Your task to perform on an android device: Is it going to rain this weekend? Image 0: 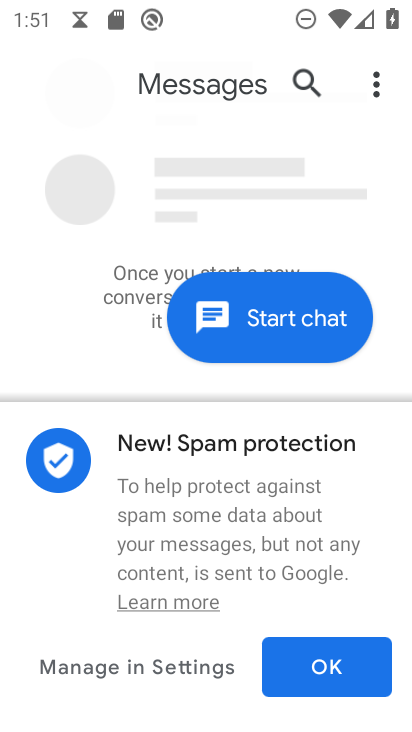
Step 0: press home button
Your task to perform on an android device: Is it going to rain this weekend? Image 1: 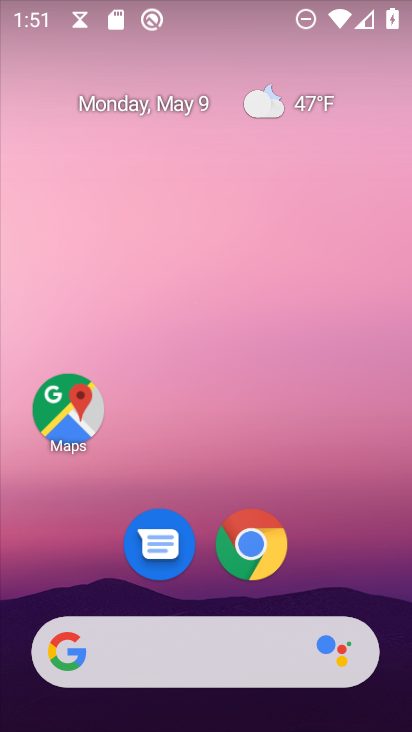
Step 1: drag from (357, 530) to (398, 163)
Your task to perform on an android device: Is it going to rain this weekend? Image 2: 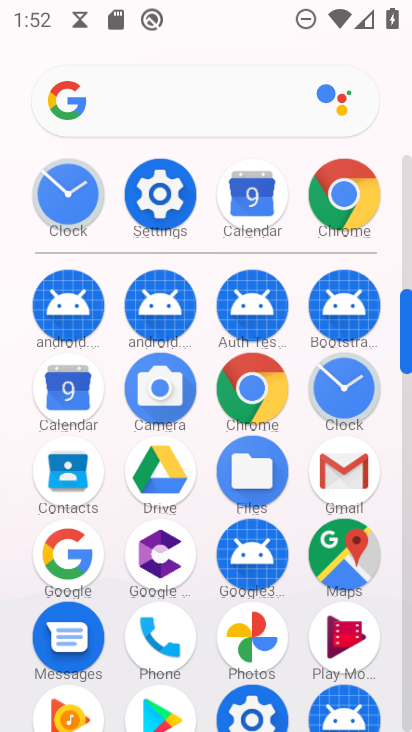
Step 2: click (91, 406)
Your task to perform on an android device: Is it going to rain this weekend? Image 3: 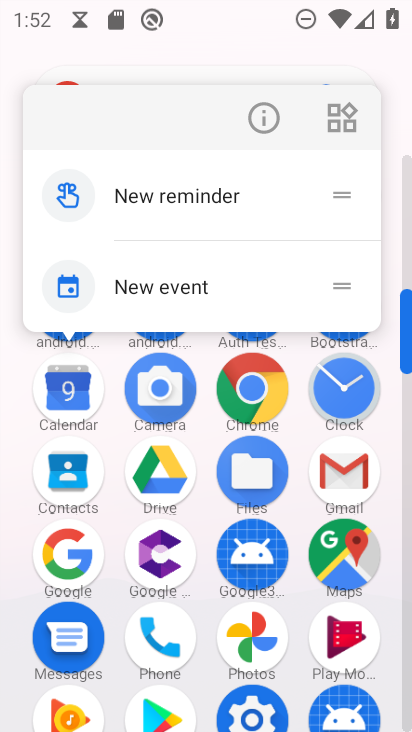
Step 3: click (93, 402)
Your task to perform on an android device: Is it going to rain this weekend? Image 4: 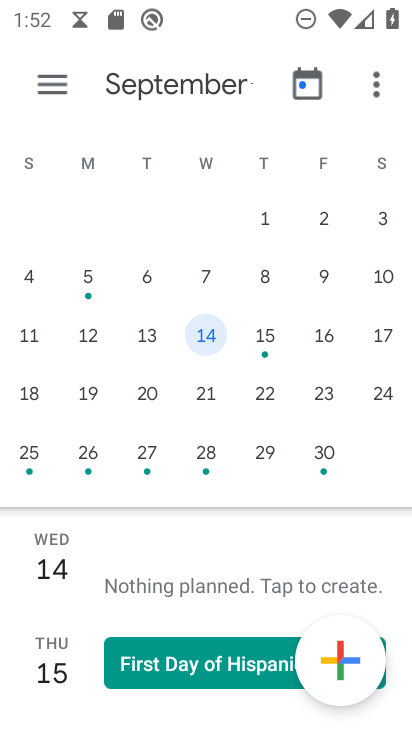
Step 4: press home button
Your task to perform on an android device: Is it going to rain this weekend? Image 5: 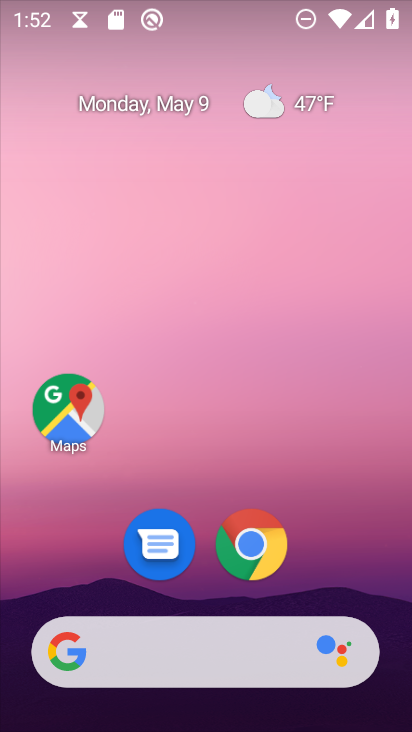
Step 5: drag from (395, 405) to (408, 225)
Your task to perform on an android device: Is it going to rain this weekend? Image 6: 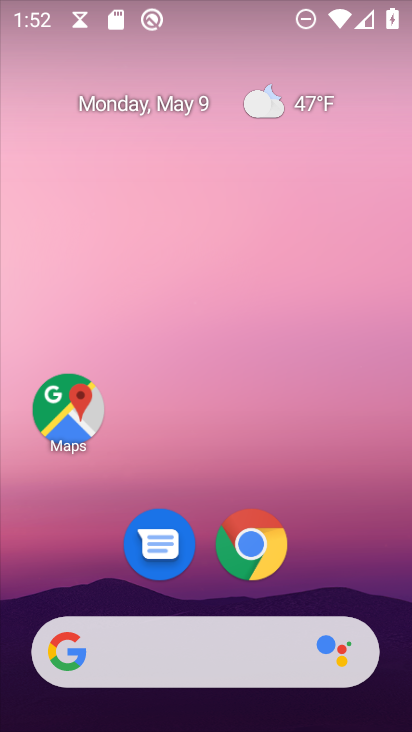
Step 6: click (257, 100)
Your task to perform on an android device: Is it going to rain this weekend? Image 7: 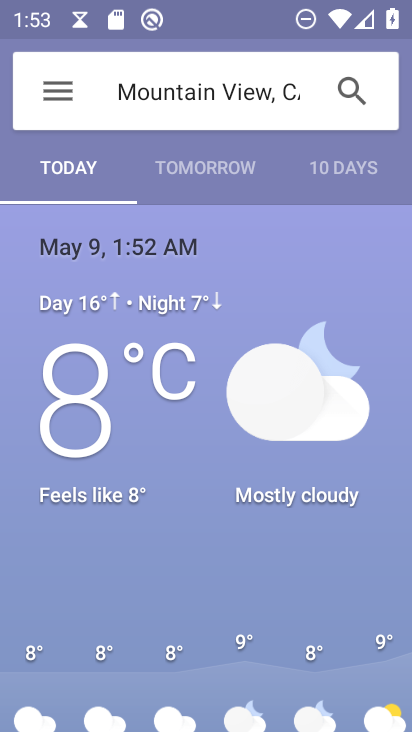
Step 7: task complete